Your task to perform on an android device: Search for Italian restaurants on Maps Image 0: 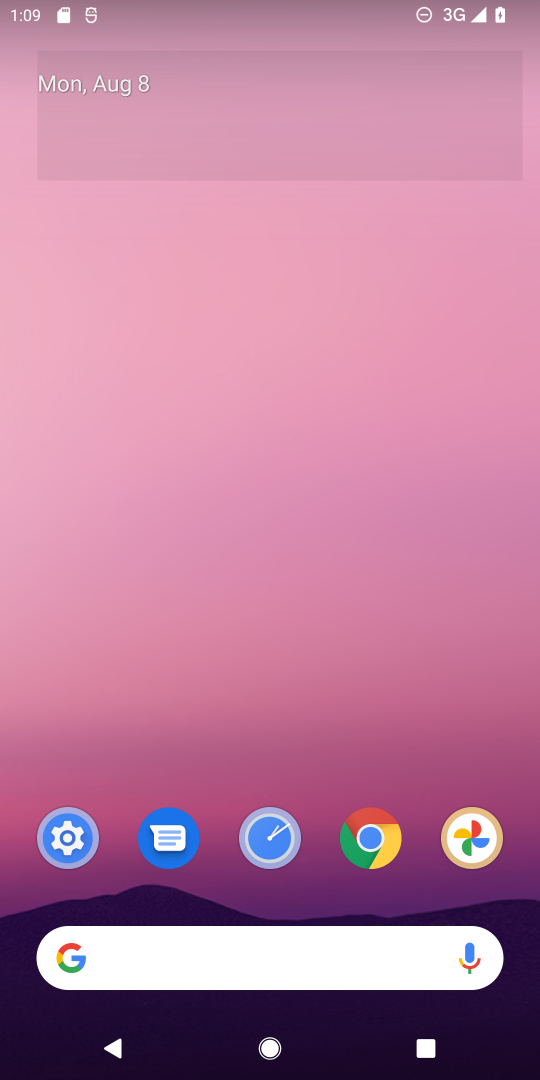
Step 0: press home button
Your task to perform on an android device: Search for Italian restaurants on Maps Image 1: 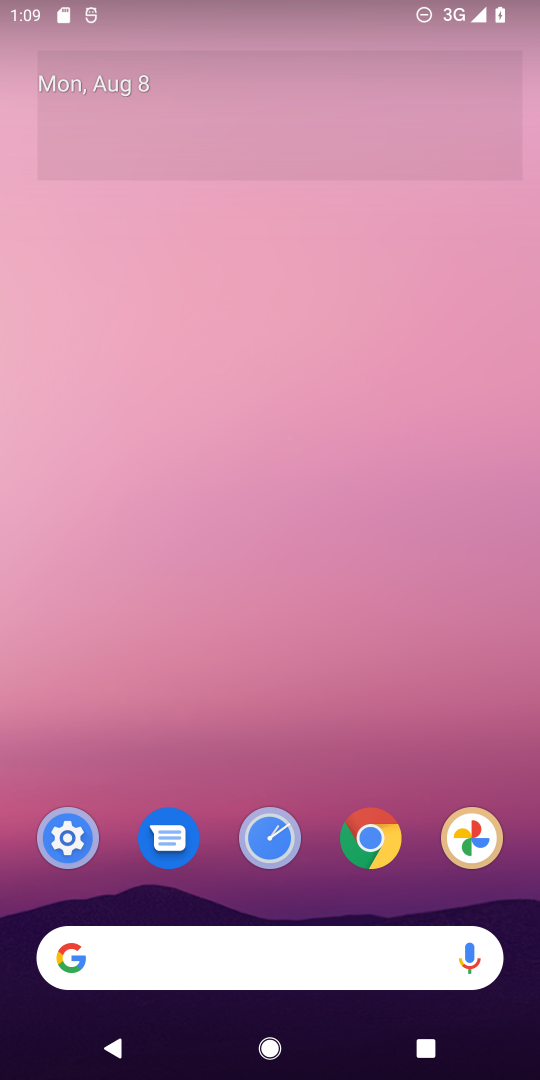
Step 1: drag from (321, 882) to (397, 71)
Your task to perform on an android device: Search for Italian restaurants on Maps Image 2: 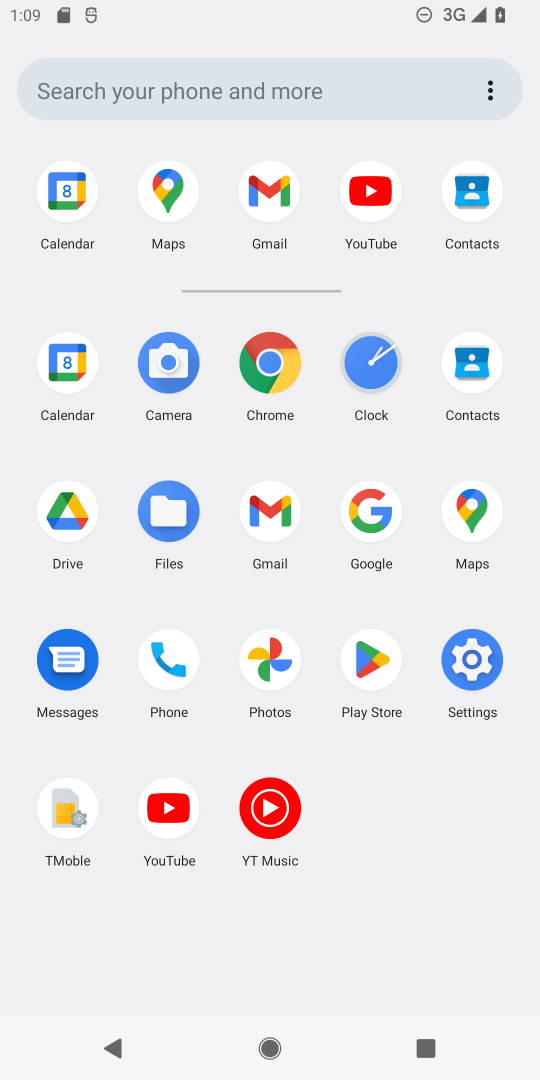
Step 2: click (160, 187)
Your task to perform on an android device: Search for Italian restaurants on Maps Image 3: 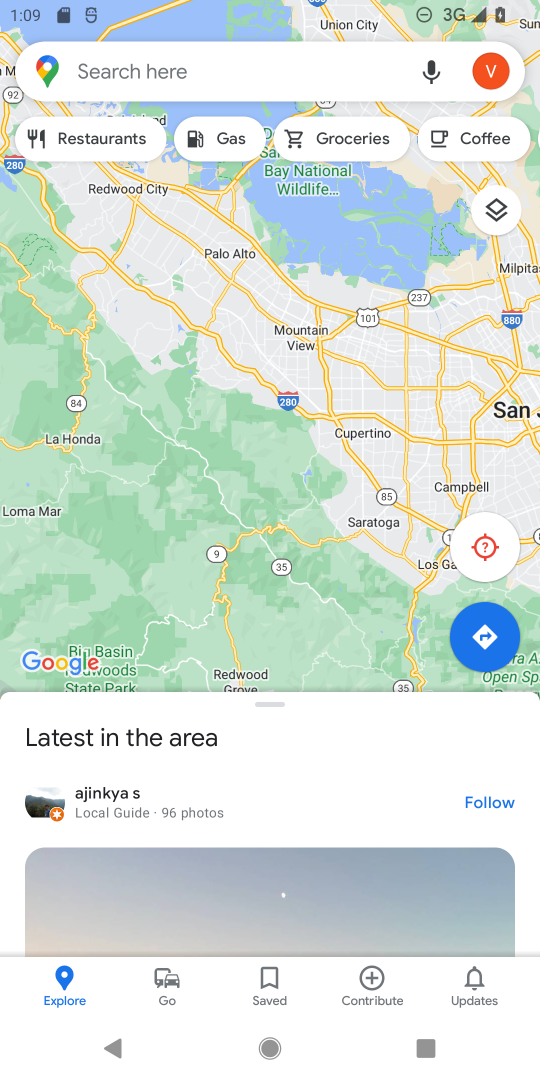
Step 3: click (223, 68)
Your task to perform on an android device: Search for Italian restaurants on Maps Image 4: 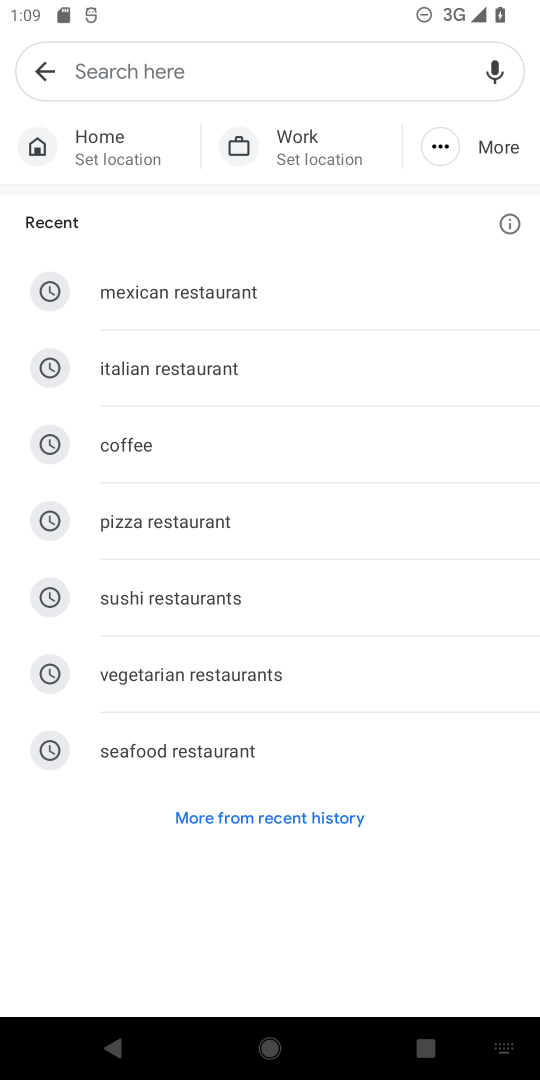
Step 4: click (189, 368)
Your task to perform on an android device: Search for Italian restaurants on Maps Image 5: 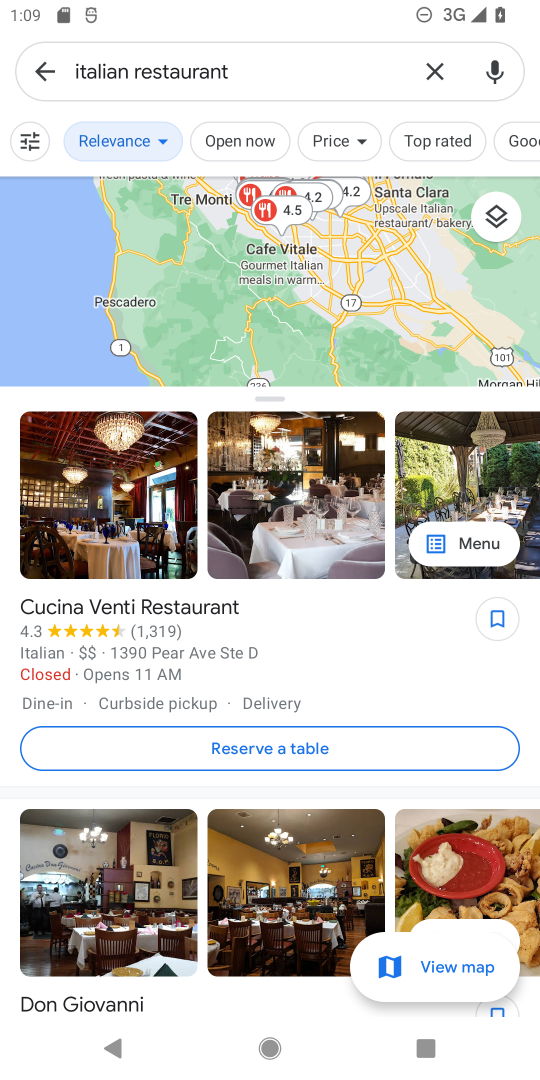
Step 5: task complete